Your task to perform on an android device: Show me the alarms in the clock app Image 0: 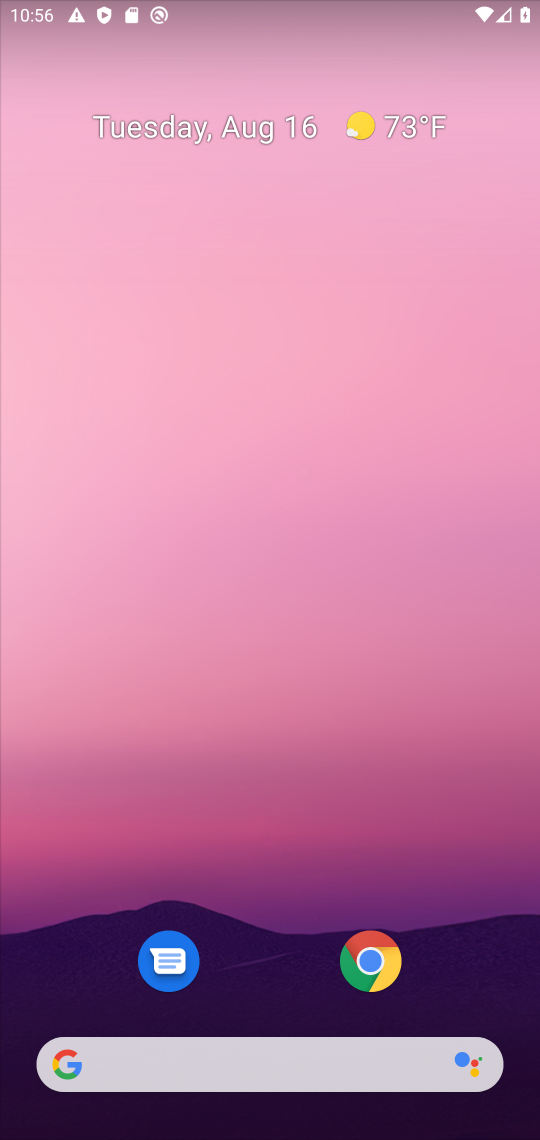
Step 0: drag from (269, 869) to (422, 85)
Your task to perform on an android device: Show me the alarms in the clock app Image 1: 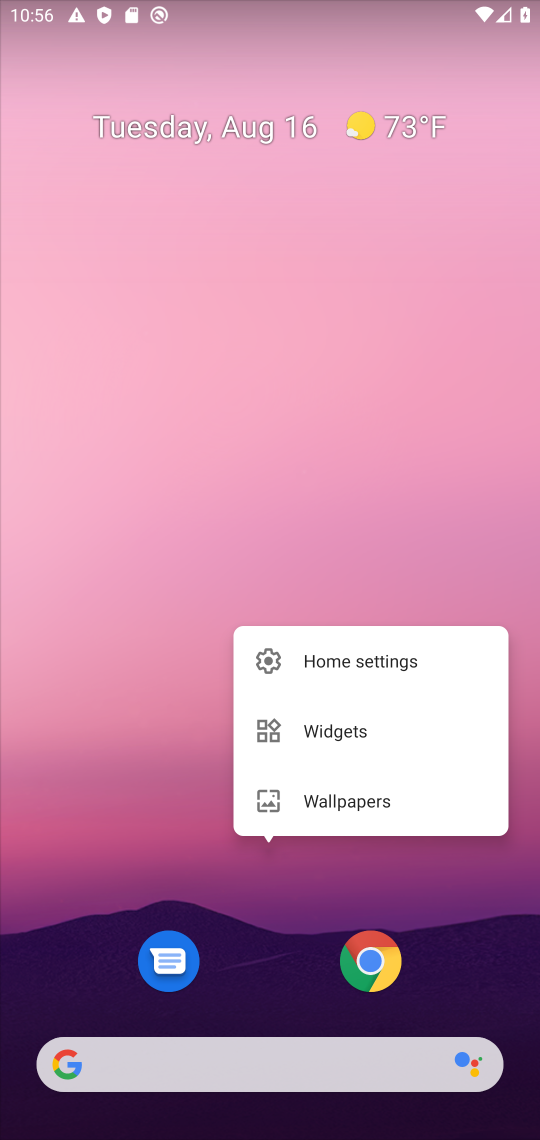
Step 1: task complete